Your task to perform on an android device: check google app version Image 0: 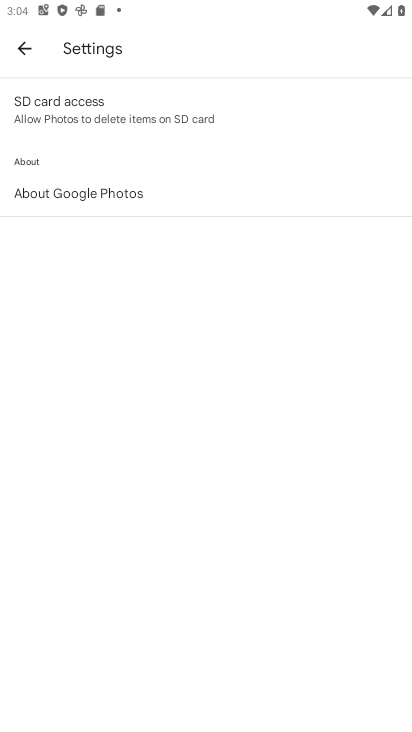
Step 0: press home button
Your task to perform on an android device: check google app version Image 1: 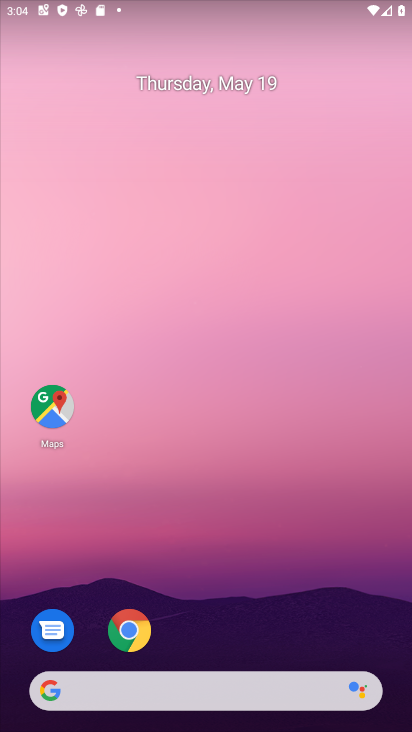
Step 1: click (128, 626)
Your task to perform on an android device: check google app version Image 2: 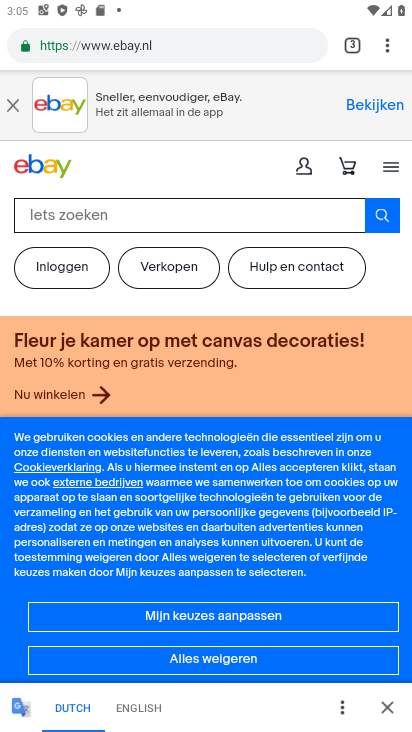
Step 2: click (384, 54)
Your task to perform on an android device: check google app version Image 3: 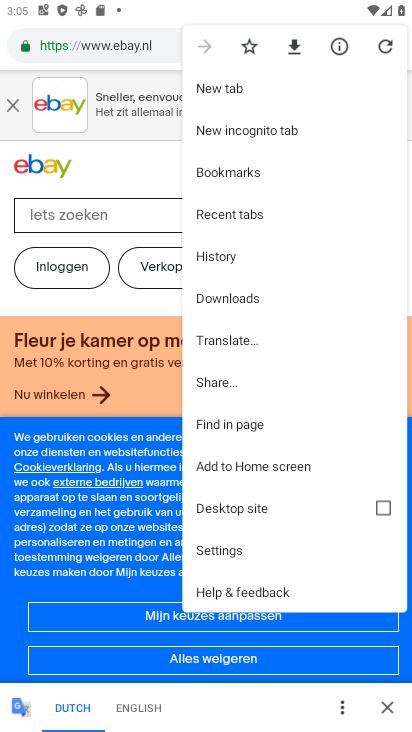
Step 3: click (226, 551)
Your task to perform on an android device: check google app version Image 4: 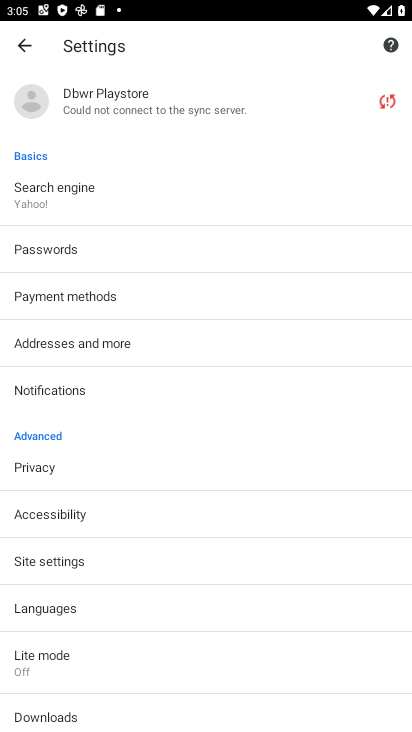
Step 4: drag from (146, 681) to (146, 309)
Your task to perform on an android device: check google app version Image 5: 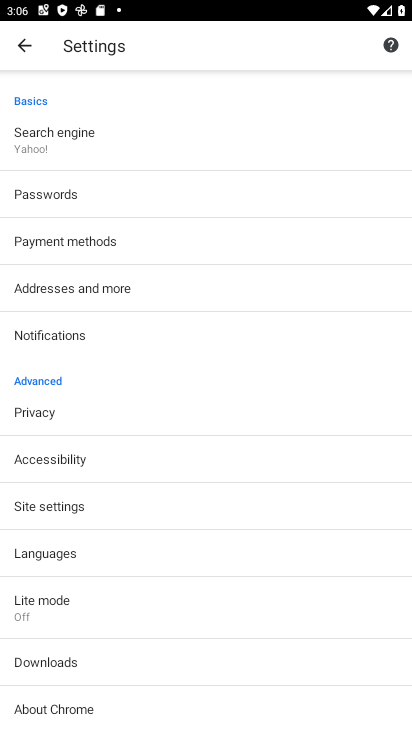
Step 5: click (83, 699)
Your task to perform on an android device: check google app version Image 6: 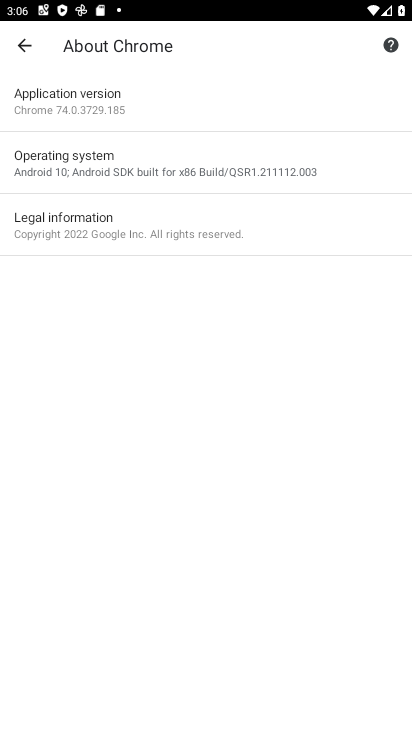
Step 6: click (88, 105)
Your task to perform on an android device: check google app version Image 7: 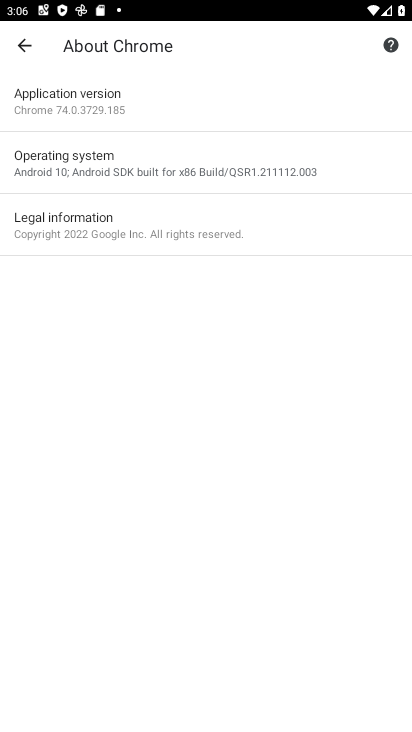
Step 7: task complete